Your task to perform on an android device: Open privacy settings Image 0: 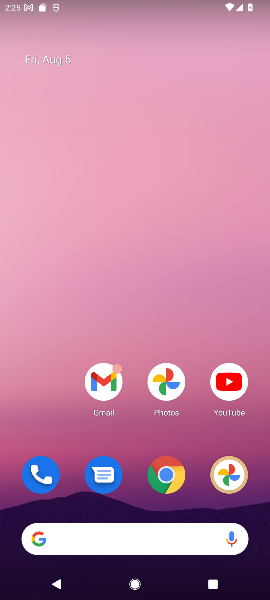
Step 0: drag from (243, 524) to (231, 51)
Your task to perform on an android device: Open privacy settings Image 1: 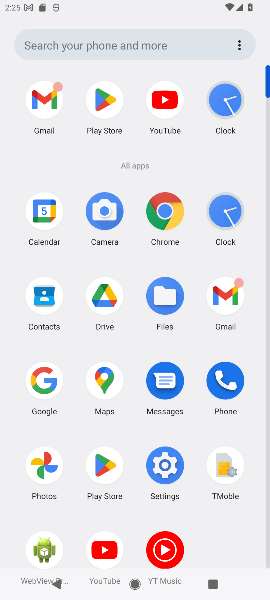
Step 1: click (158, 455)
Your task to perform on an android device: Open privacy settings Image 2: 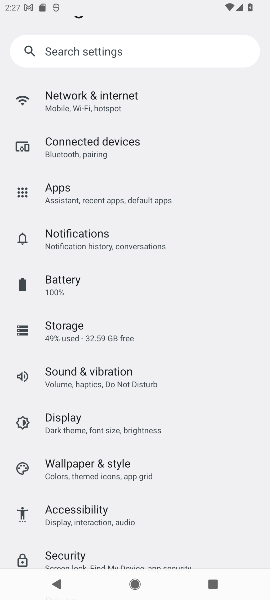
Step 2: drag from (228, 470) to (240, 259)
Your task to perform on an android device: Open privacy settings Image 3: 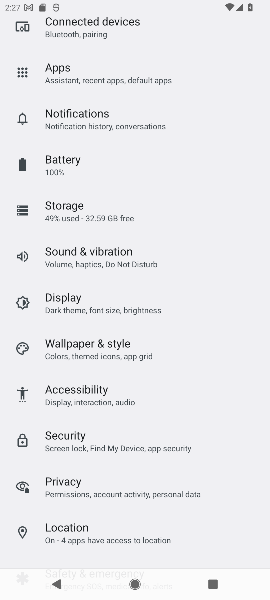
Step 3: click (75, 488)
Your task to perform on an android device: Open privacy settings Image 4: 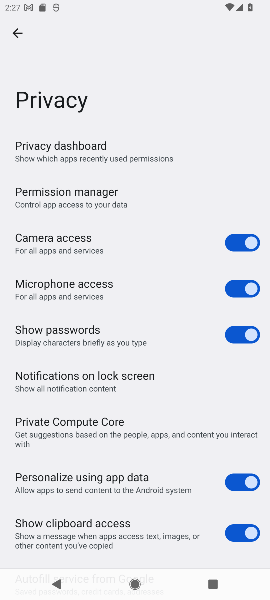
Step 4: task complete